Your task to perform on an android device: all mails in gmail Image 0: 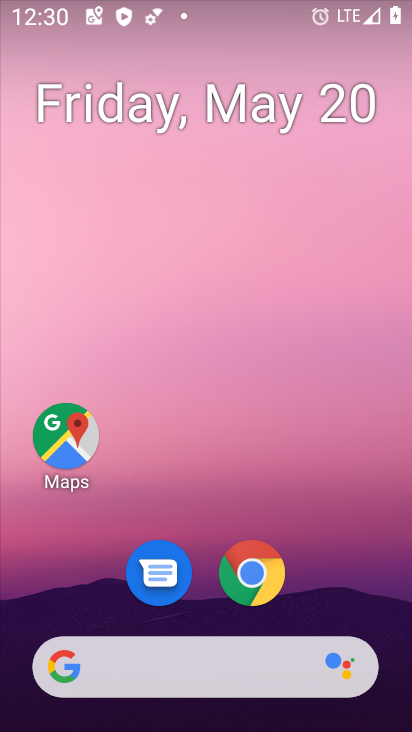
Step 0: drag from (202, 550) to (212, 113)
Your task to perform on an android device: all mails in gmail Image 1: 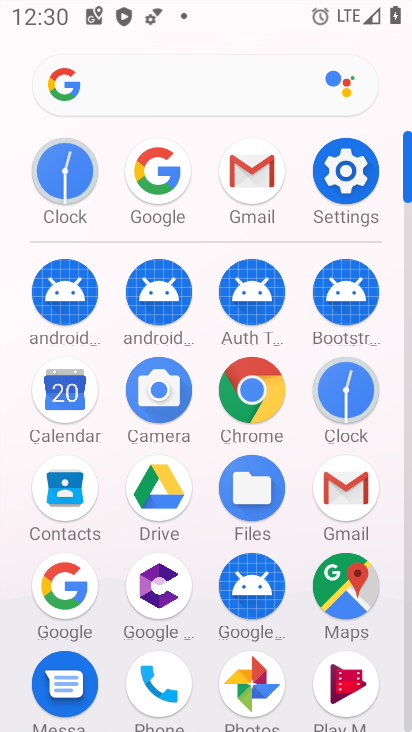
Step 1: click (258, 149)
Your task to perform on an android device: all mails in gmail Image 2: 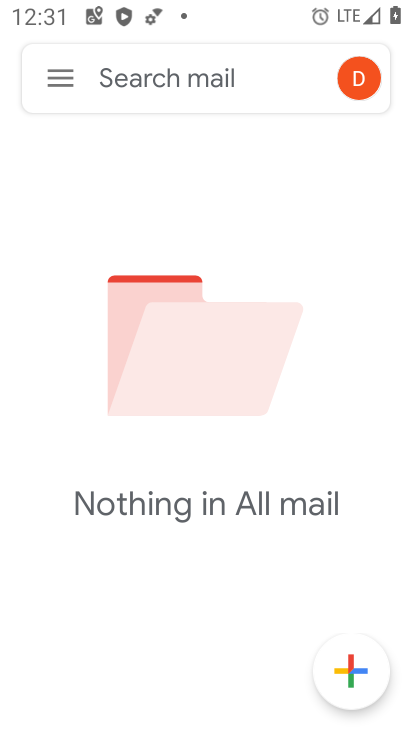
Step 2: task complete